Your task to perform on an android device: Open eBay Image 0: 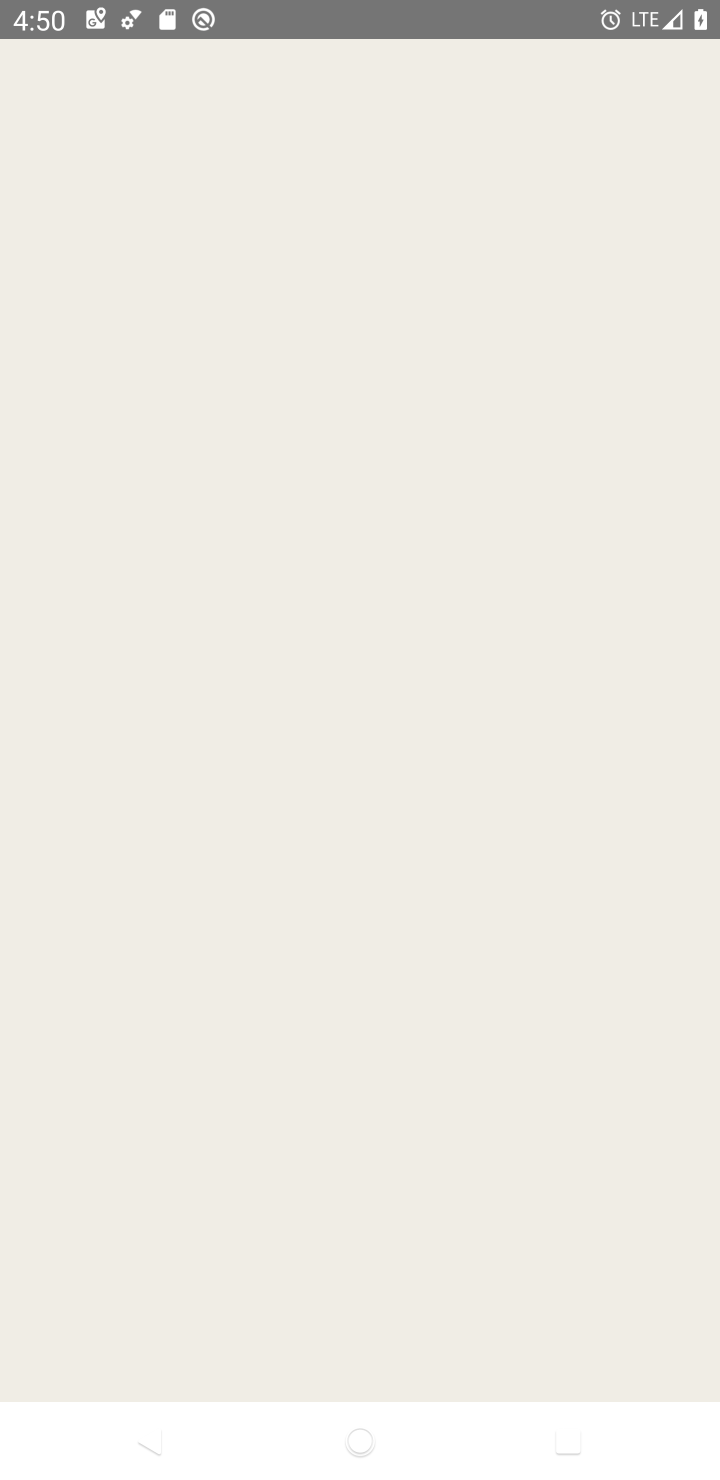
Step 0: press home button
Your task to perform on an android device: Open eBay Image 1: 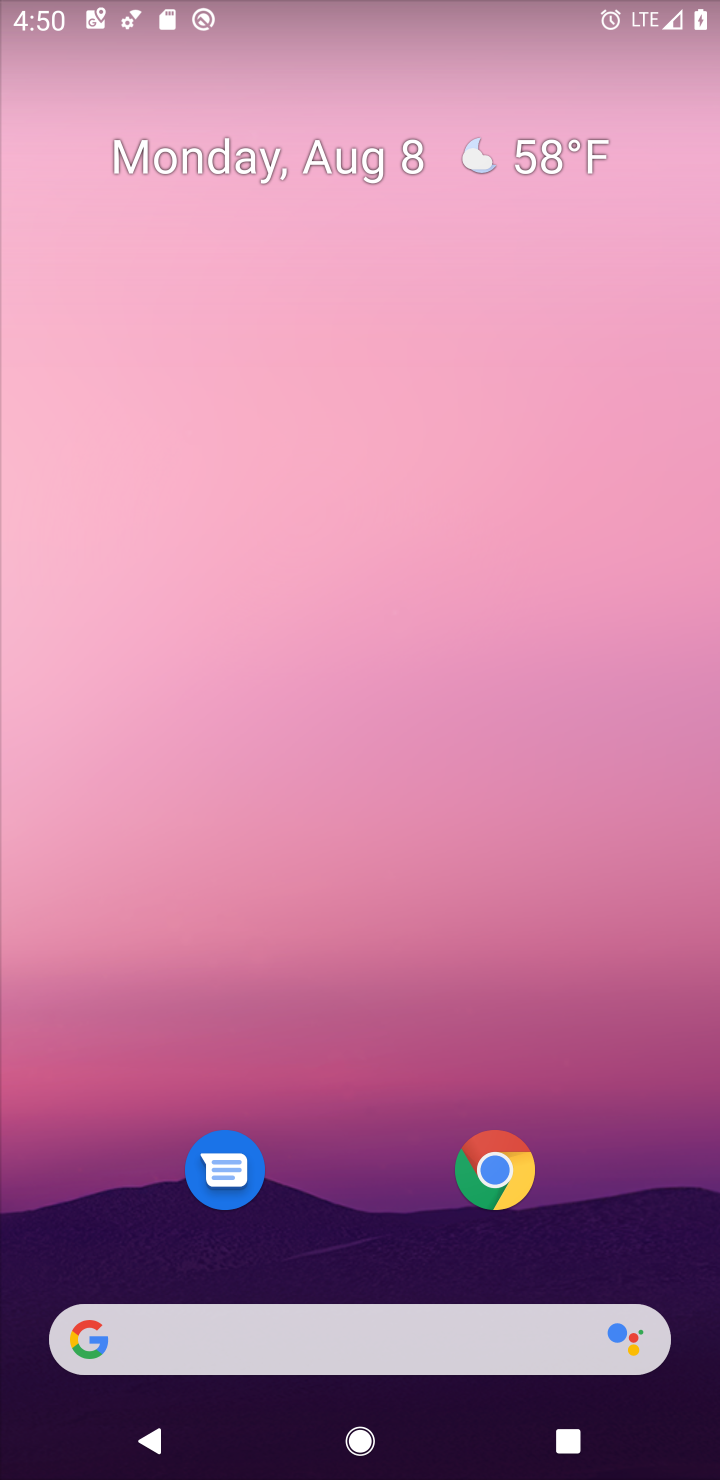
Step 1: click (494, 1180)
Your task to perform on an android device: Open eBay Image 2: 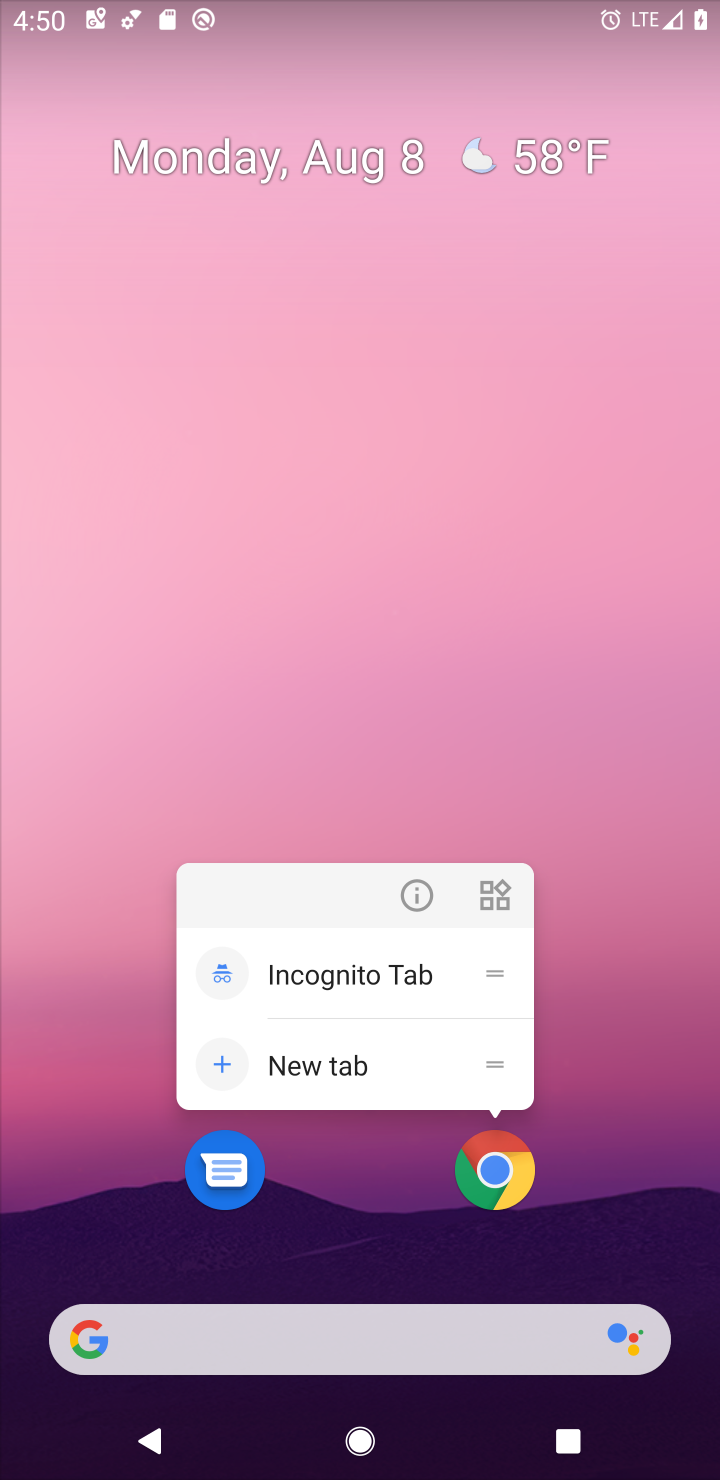
Step 2: click (520, 1179)
Your task to perform on an android device: Open eBay Image 3: 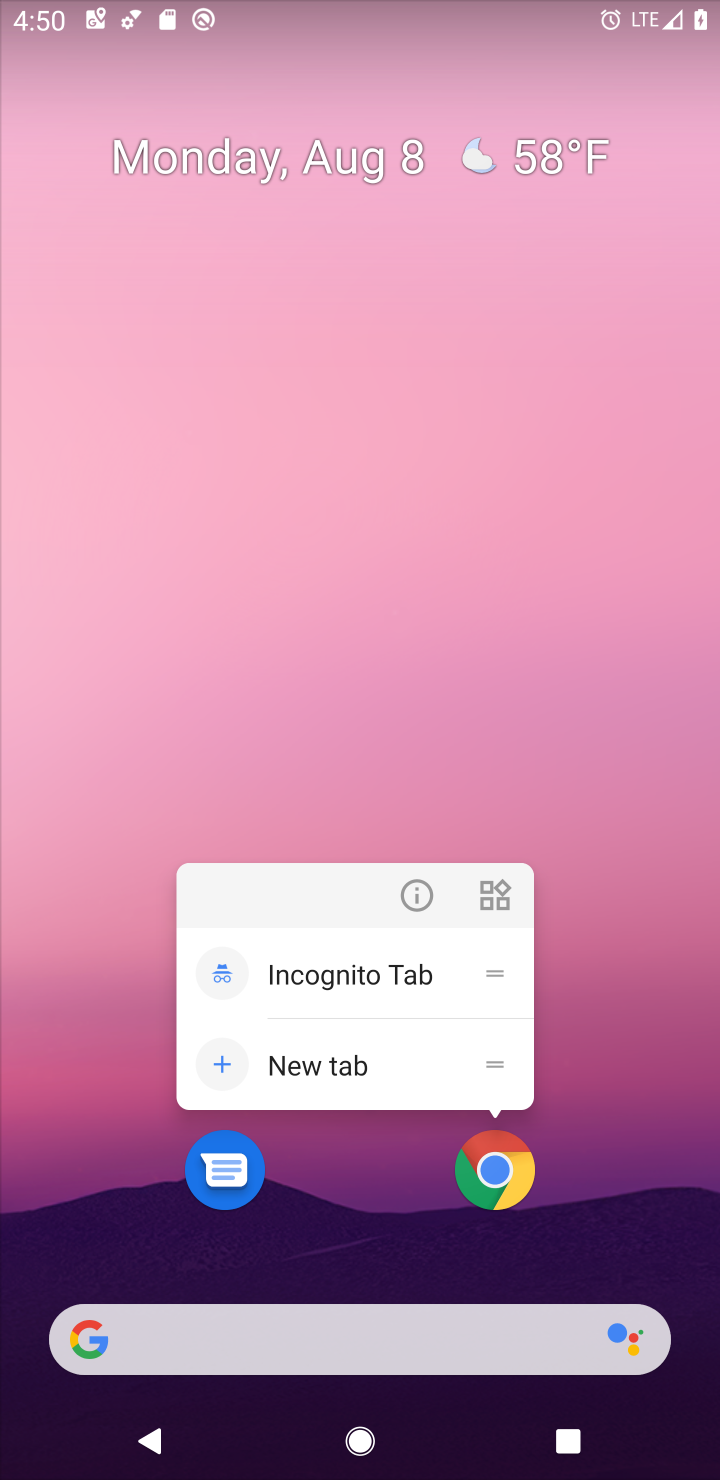
Step 3: click (520, 1179)
Your task to perform on an android device: Open eBay Image 4: 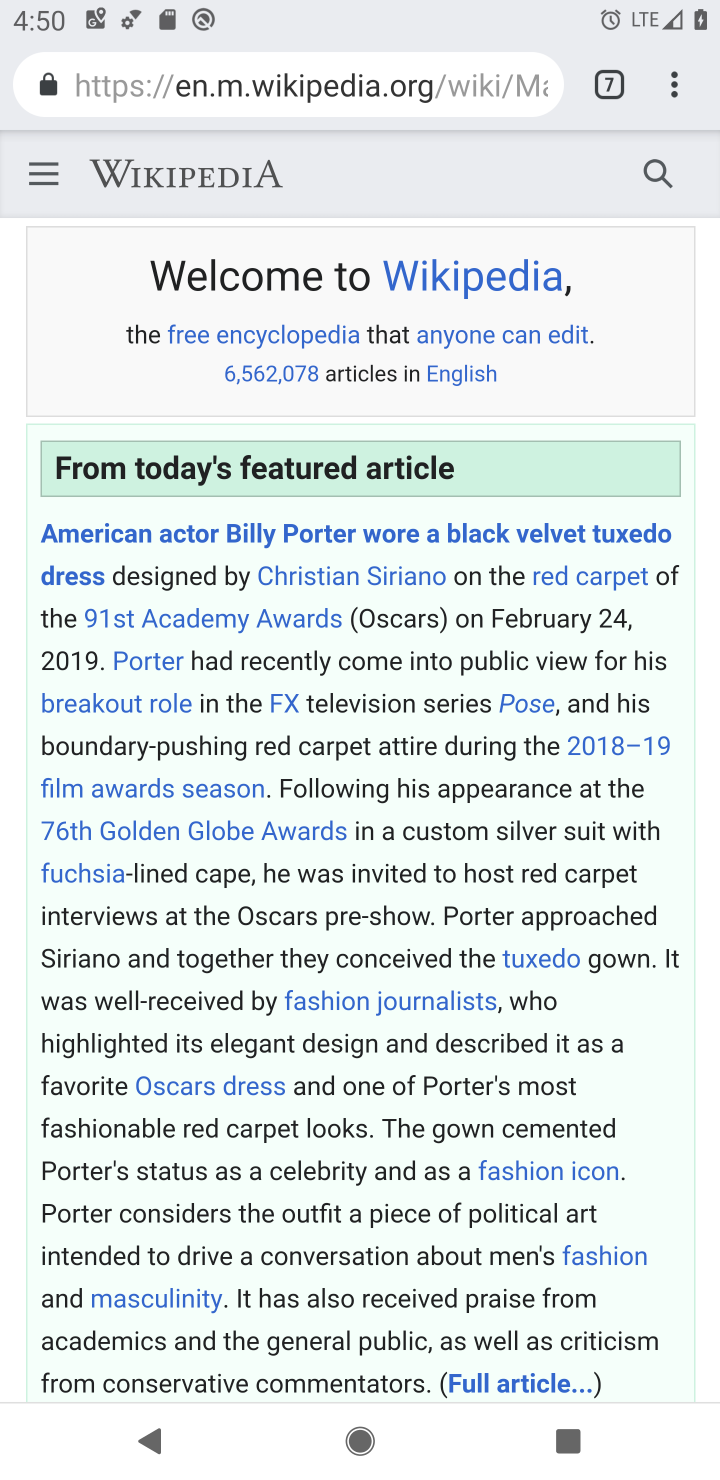
Step 4: click (602, 92)
Your task to perform on an android device: Open eBay Image 5: 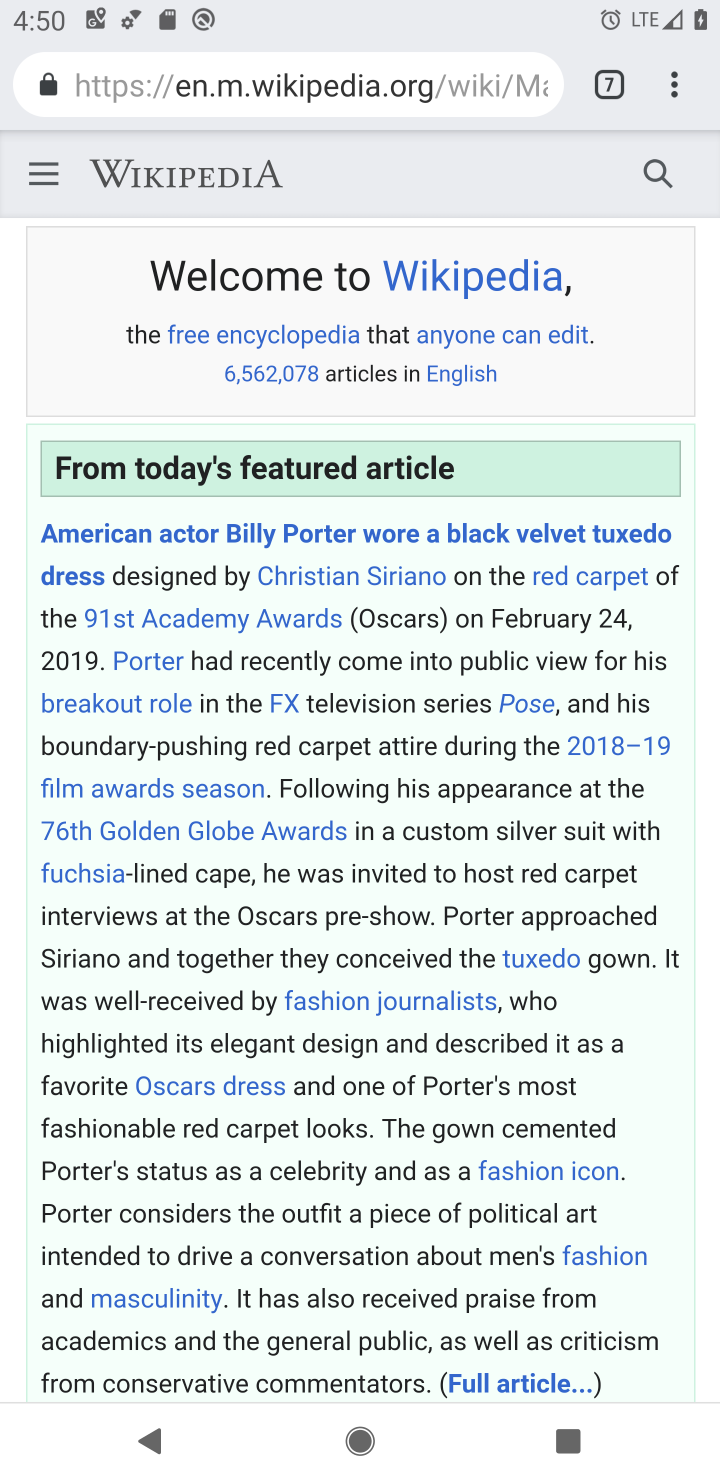
Step 5: click (605, 73)
Your task to perform on an android device: Open eBay Image 6: 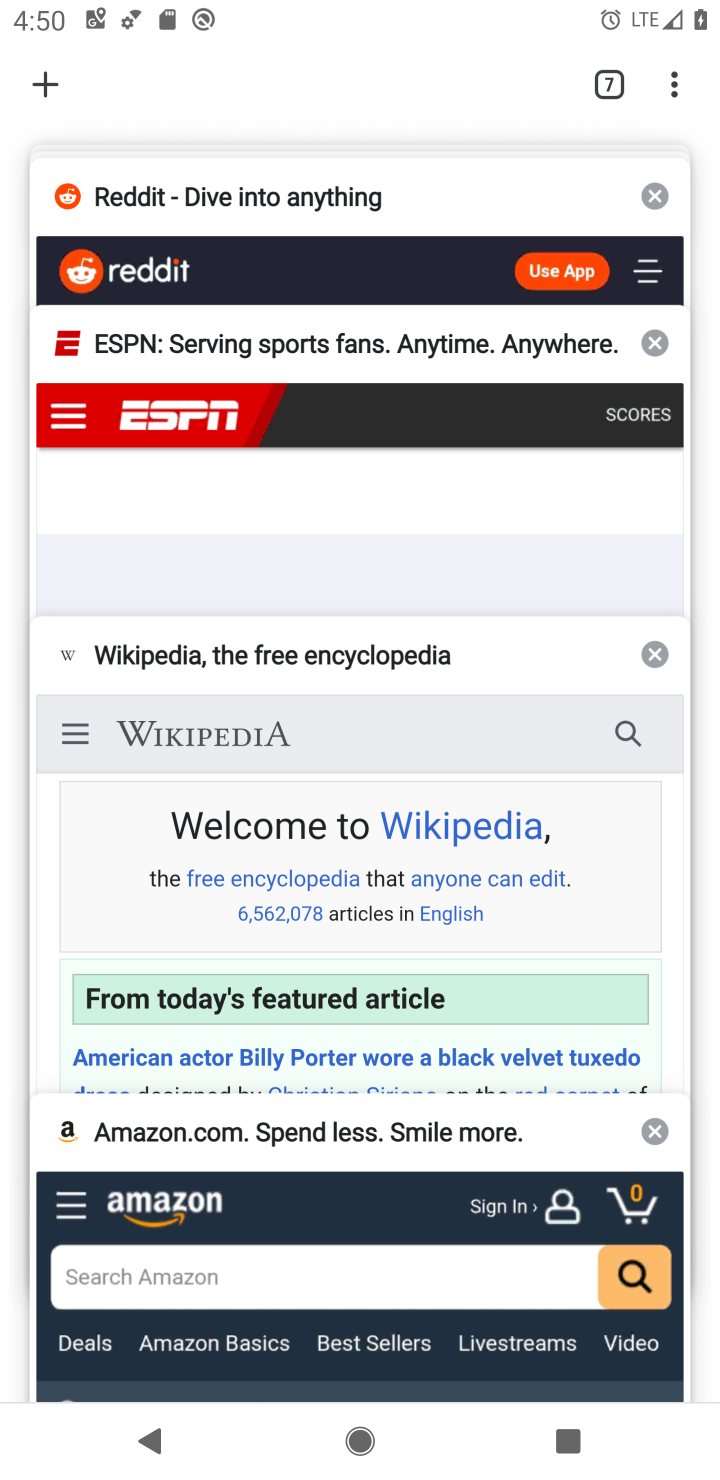
Step 6: click (48, 89)
Your task to perform on an android device: Open eBay Image 7: 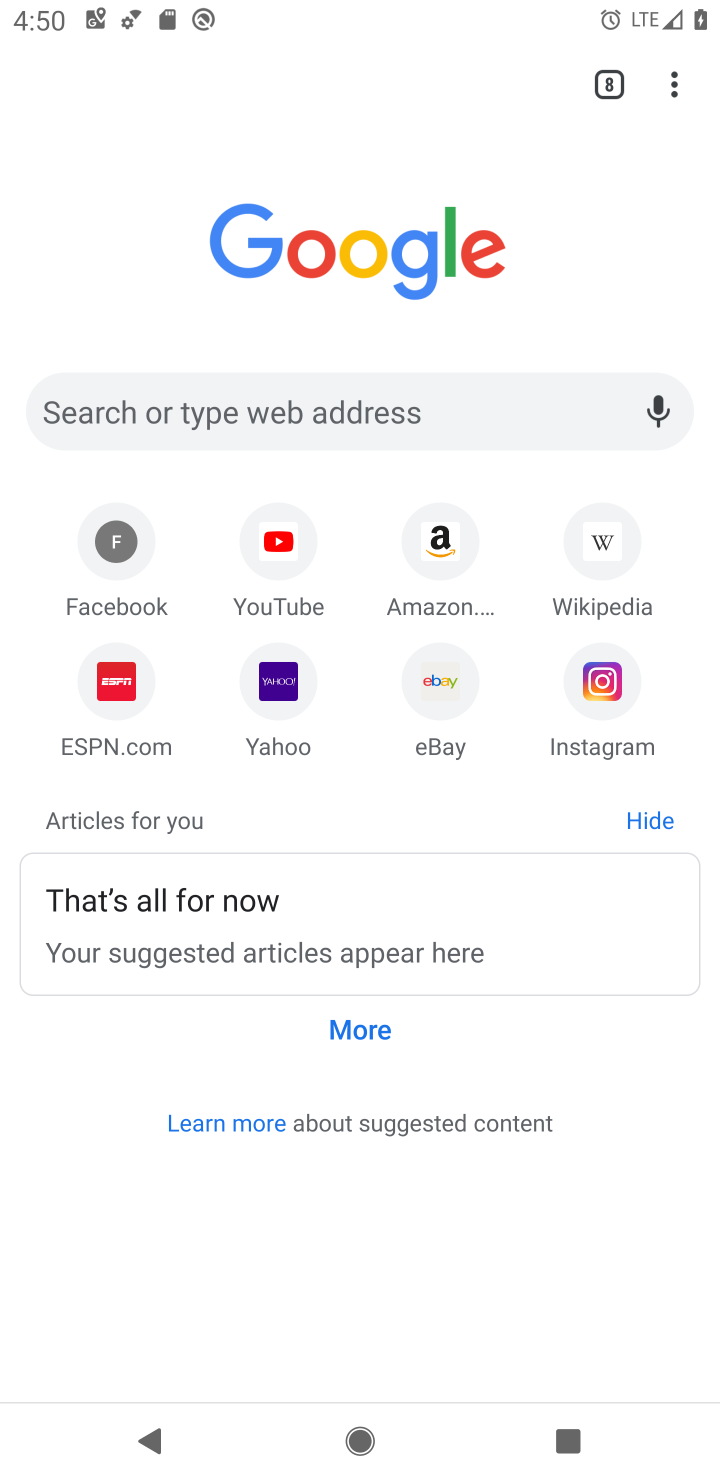
Step 7: click (425, 708)
Your task to perform on an android device: Open eBay Image 8: 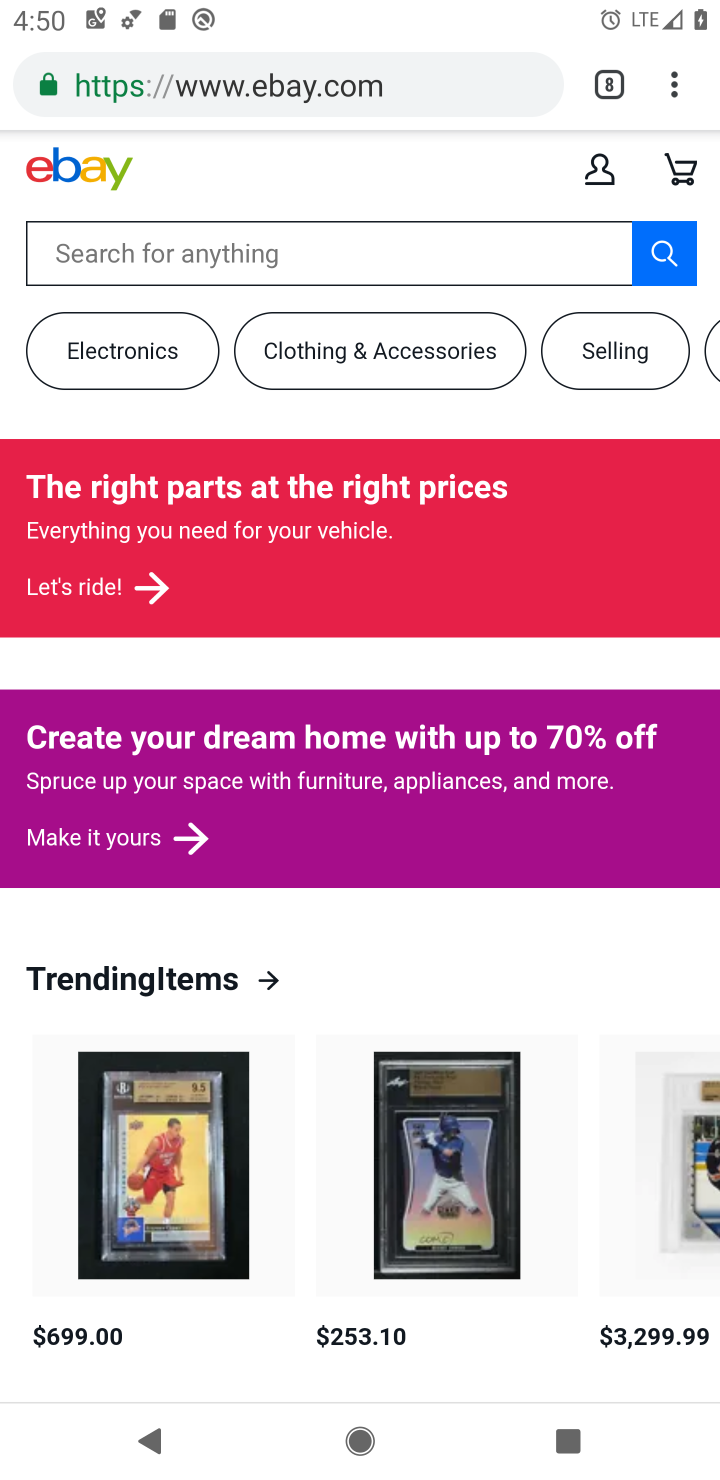
Step 8: task complete